Your task to perform on an android device: clear history in the chrome app Image 0: 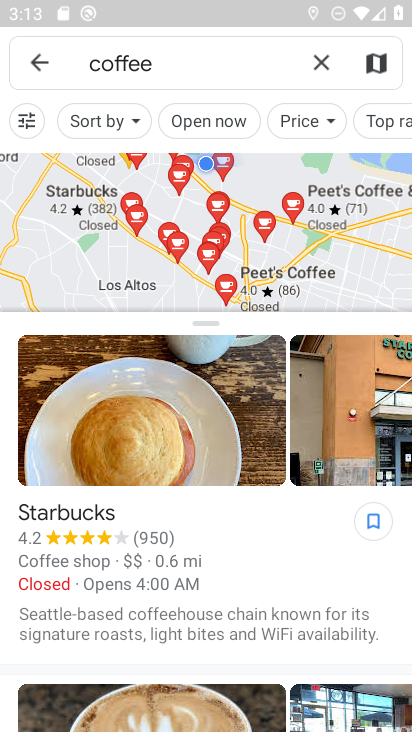
Step 0: press home button
Your task to perform on an android device: clear history in the chrome app Image 1: 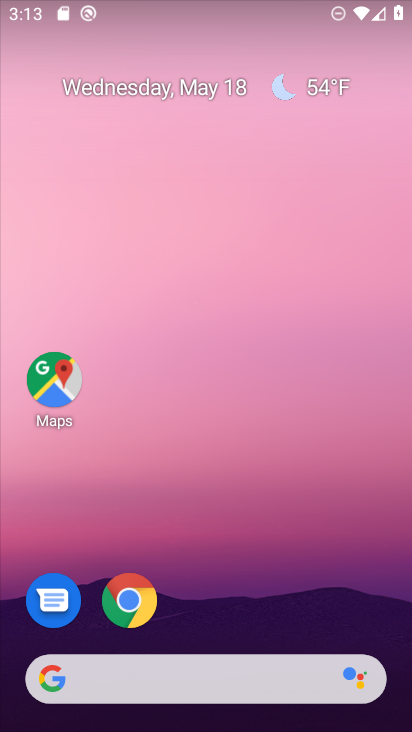
Step 1: drag from (229, 613) to (274, 286)
Your task to perform on an android device: clear history in the chrome app Image 2: 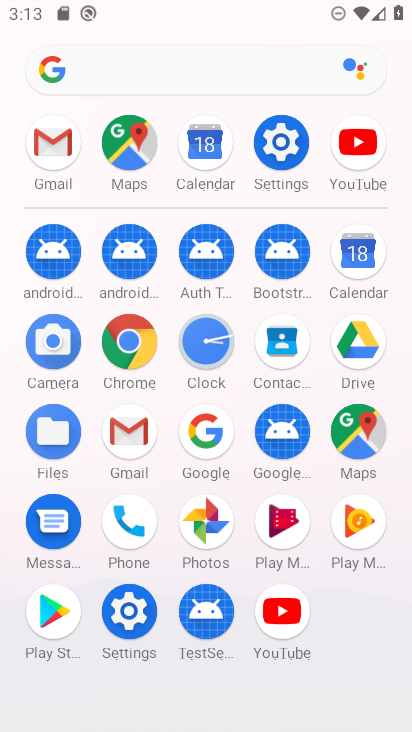
Step 2: click (124, 342)
Your task to perform on an android device: clear history in the chrome app Image 3: 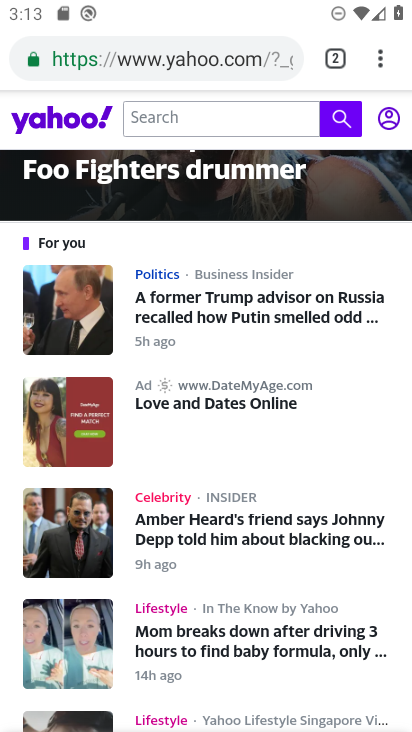
Step 3: click (383, 56)
Your task to perform on an android device: clear history in the chrome app Image 4: 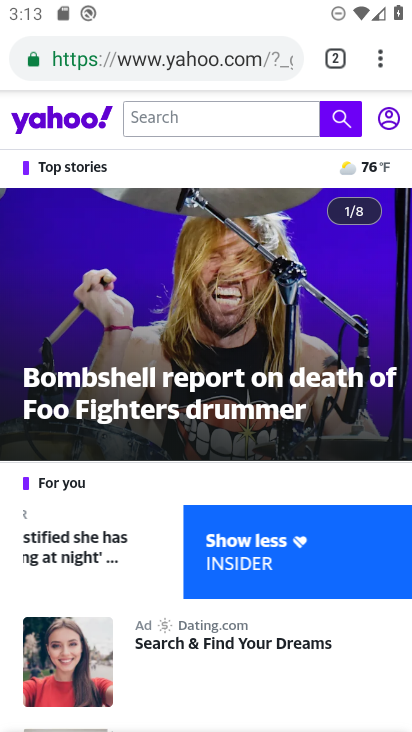
Step 4: click (378, 61)
Your task to perform on an android device: clear history in the chrome app Image 5: 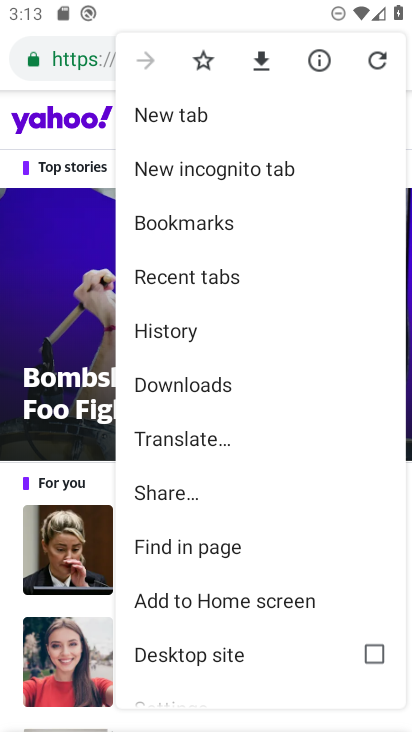
Step 5: click (173, 323)
Your task to perform on an android device: clear history in the chrome app Image 6: 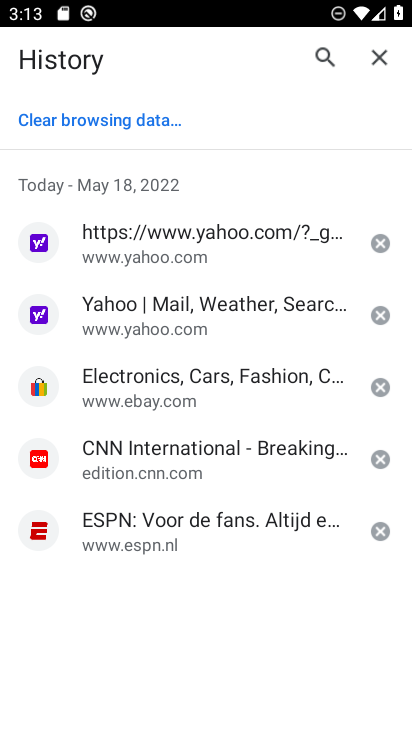
Step 6: click (103, 131)
Your task to perform on an android device: clear history in the chrome app Image 7: 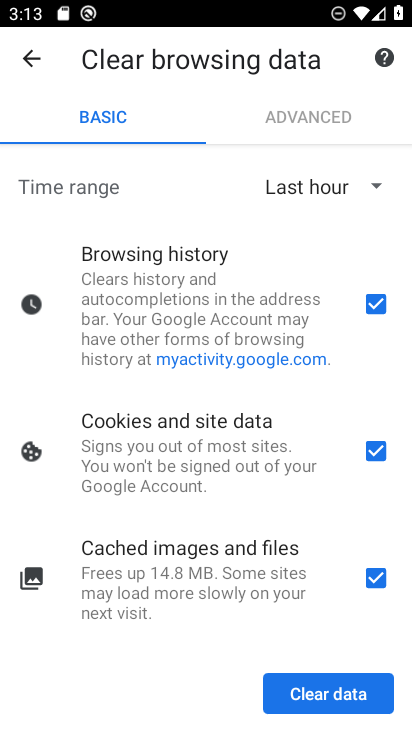
Step 7: click (340, 689)
Your task to perform on an android device: clear history in the chrome app Image 8: 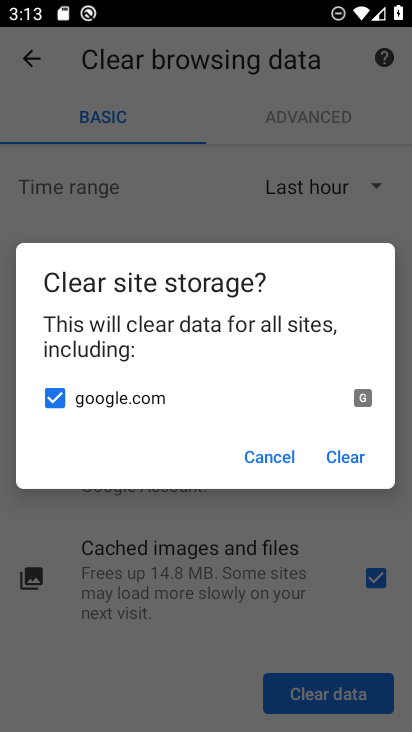
Step 8: click (365, 458)
Your task to perform on an android device: clear history in the chrome app Image 9: 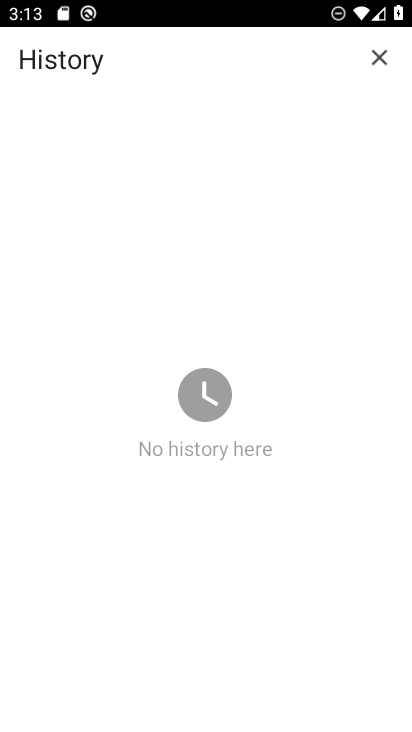
Step 9: task complete